Your task to perform on an android device: turn pop-ups on in chrome Image 0: 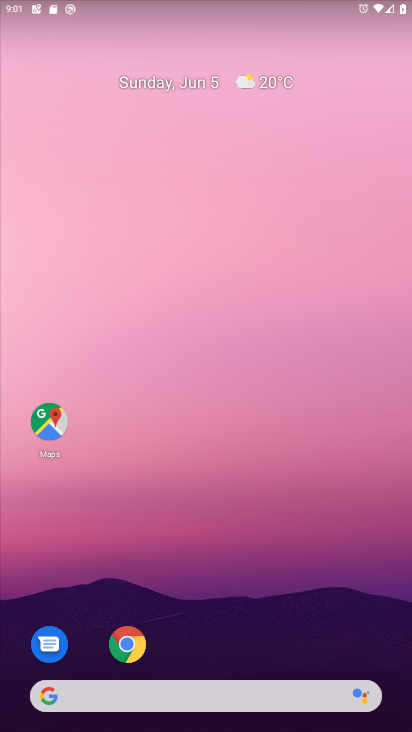
Step 0: drag from (311, 601) to (261, 141)
Your task to perform on an android device: turn pop-ups on in chrome Image 1: 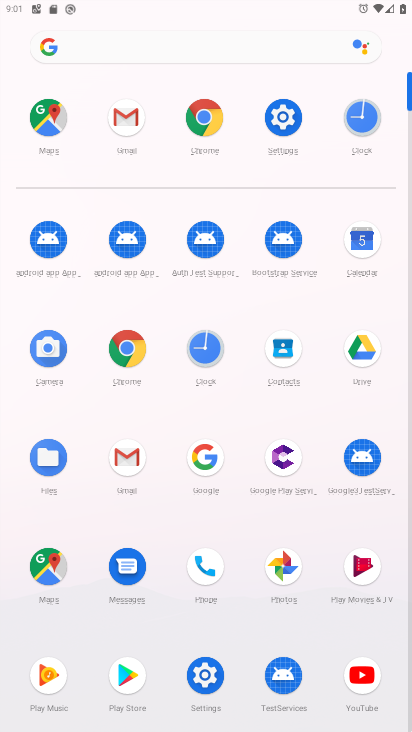
Step 1: click (135, 371)
Your task to perform on an android device: turn pop-ups on in chrome Image 2: 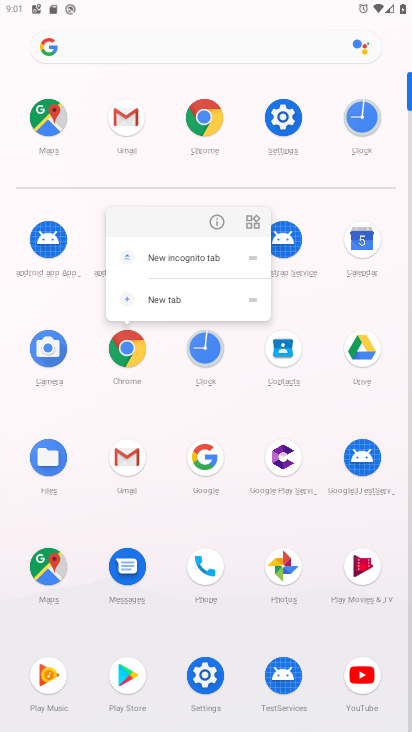
Step 2: click (133, 366)
Your task to perform on an android device: turn pop-ups on in chrome Image 3: 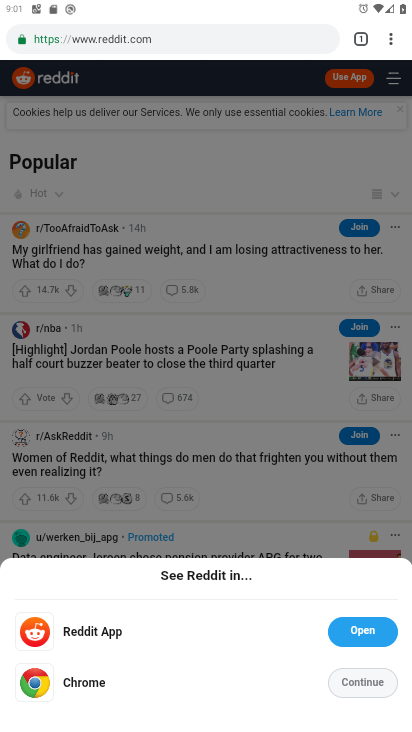
Step 3: drag from (397, 41) to (266, 466)
Your task to perform on an android device: turn pop-ups on in chrome Image 4: 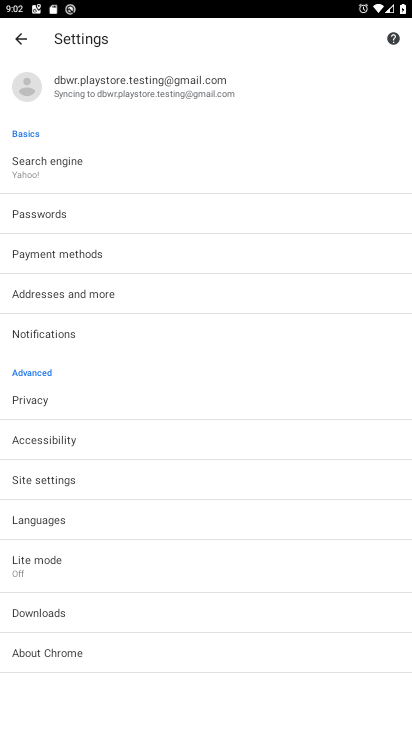
Step 4: click (99, 489)
Your task to perform on an android device: turn pop-ups on in chrome Image 5: 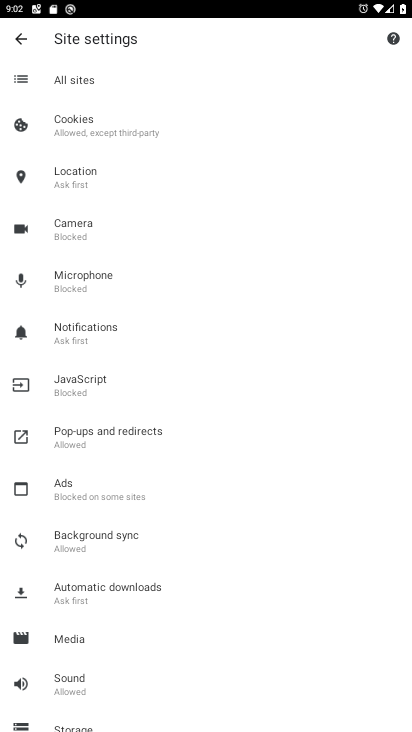
Step 5: click (128, 430)
Your task to perform on an android device: turn pop-ups on in chrome Image 6: 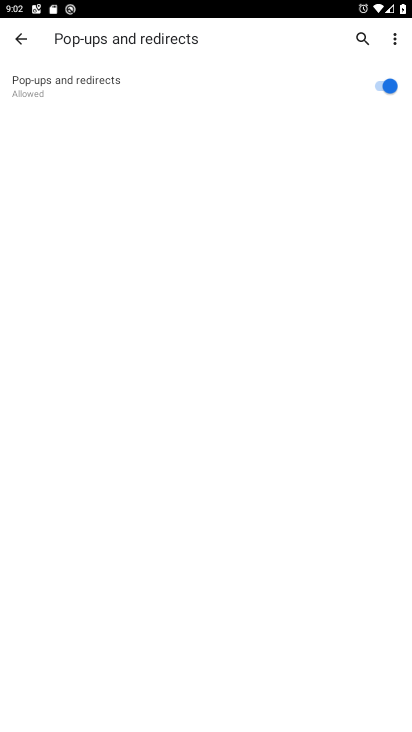
Step 6: task complete